Your task to perform on an android device: refresh tabs in the chrome app Image 0: 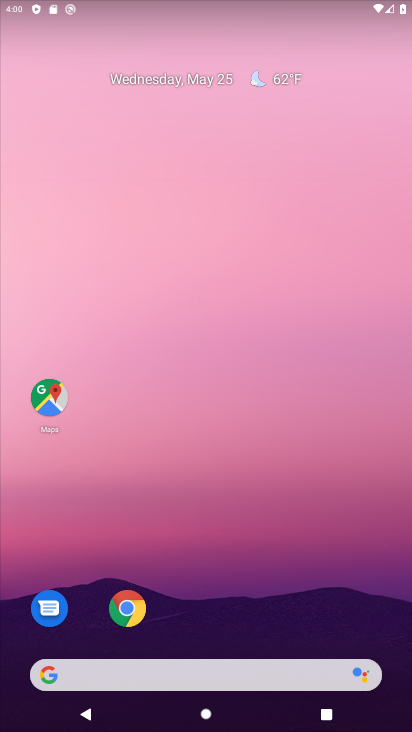
Step 0: click (127, 610)
Your task to perform on an android device: refresh tabs in the chrome app Image 1: 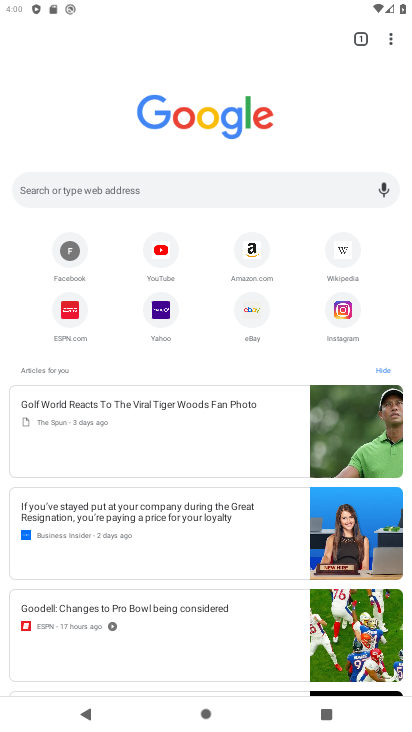
Step 1: click (392, 39)
Your task to perform on an android device: refresh tabs in the chrome app Image 2: 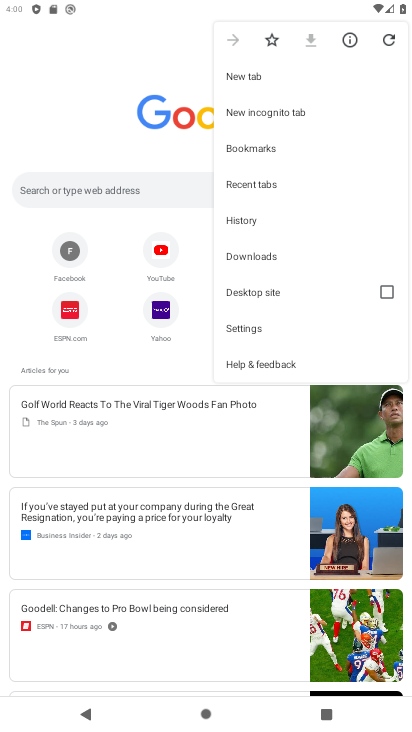
Step 2: click (390, 45)
Your task to perform on an android device: refresh tabs in the chrome app Image 3: 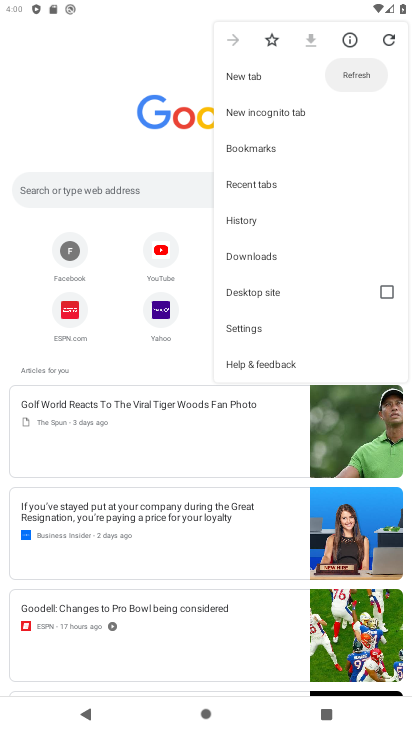
Step 3: click (390, 45)
Your task to perform on an android device: refresh tabs in the chrome app Image 4: 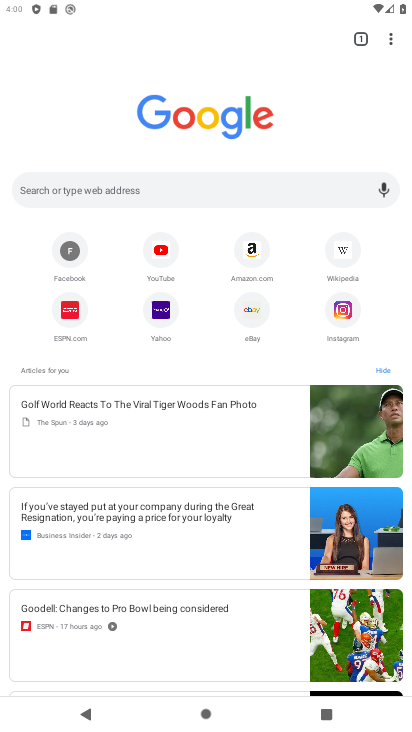
Step 4: task complete